Your task to perform on an android device: turn on the 12-hour format for clock Image 0: 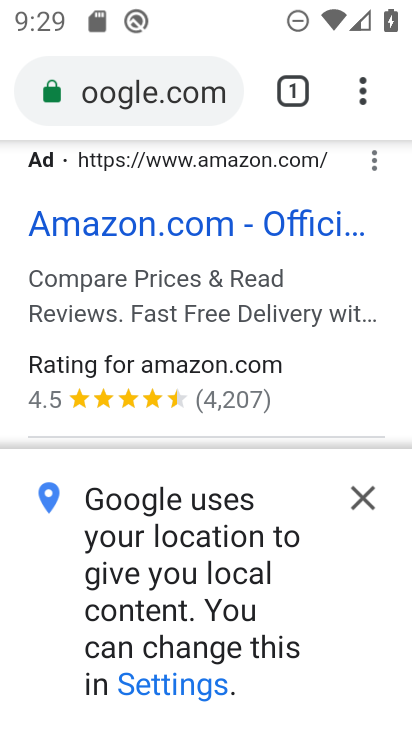
Step 0: press home button
Your task to perform on an android device: turn on the 12-hour format for clock Image 1: 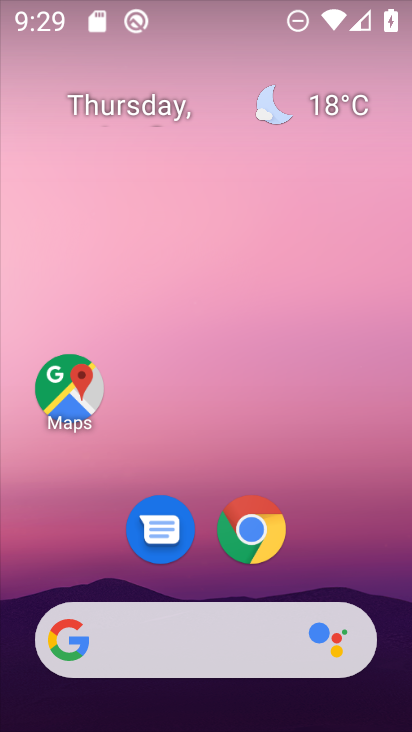
Step 1: drag from (400, 707) to (357, 127)
Your task to perform on an android device: turn on the 12-hour format for clock Image 2: 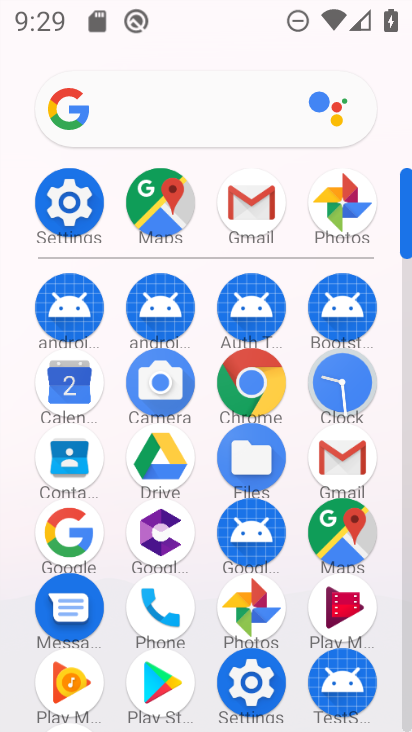
Step 2: click (320, 393)
Your task to perform on an android device: turn on the 12-hour format for clock Image 3: 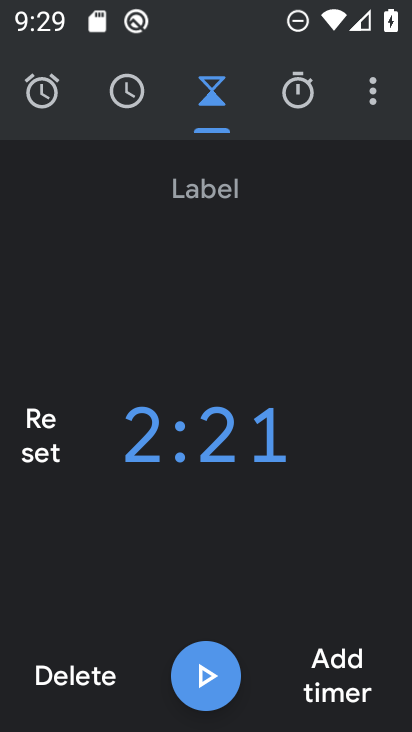
Step 3: press home button
Your task to perform on an android device: turn on the 12-hour format for clock Image 4: 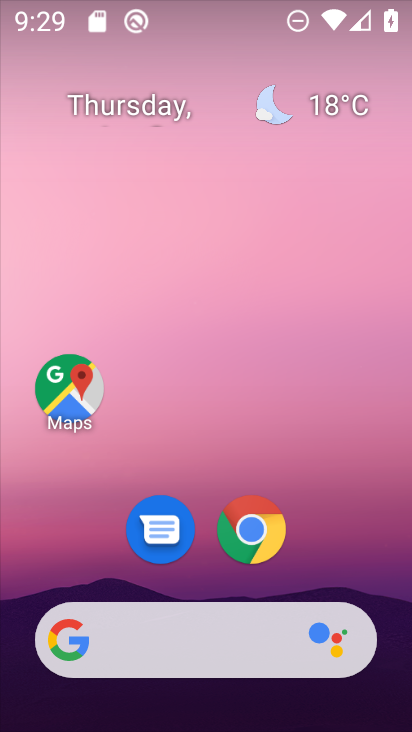
Step 4: drag from (395, 708) to (362, 304)
Your task to perform on an android device: turn on the 12-hour format for clock Image 5: 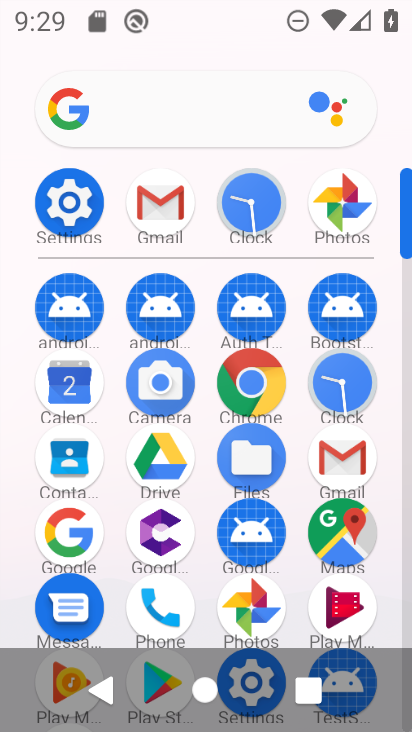
Step 5: click (330, 392)
Your task to perform on an android device: turn on the 12-hour format for clock Image 6: 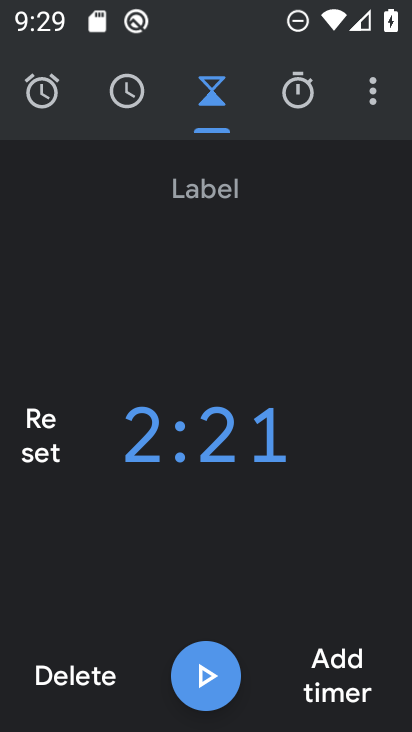
Step 6: click (370, 94)
Your task to perform on an android device: turn on the 12-hour format for clock Image 7: 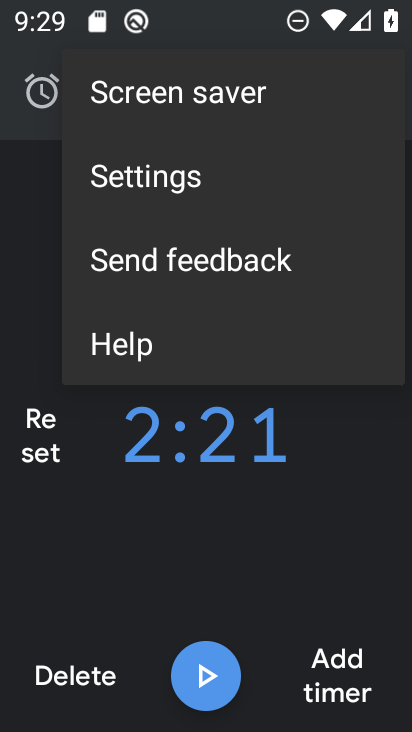
Step 7: click (131, 168)
Your task to perform on an android device: turn on the 12-hour format for clock Image 8: 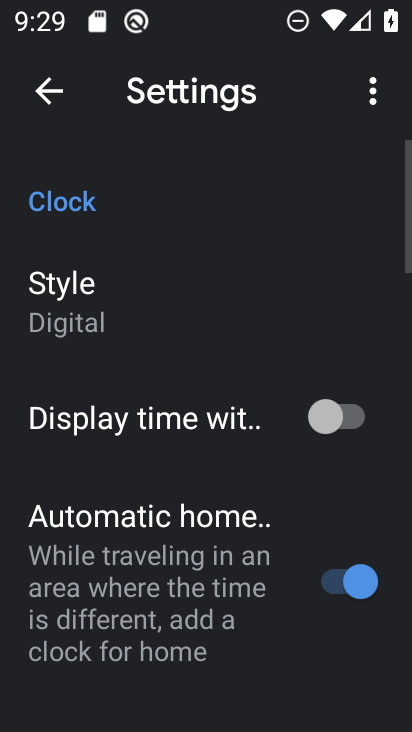
Step 8: drag from (239, 663) to (223, 270)
Your task to perform on an android device: turn on the 12-hour format for clock Image 9: 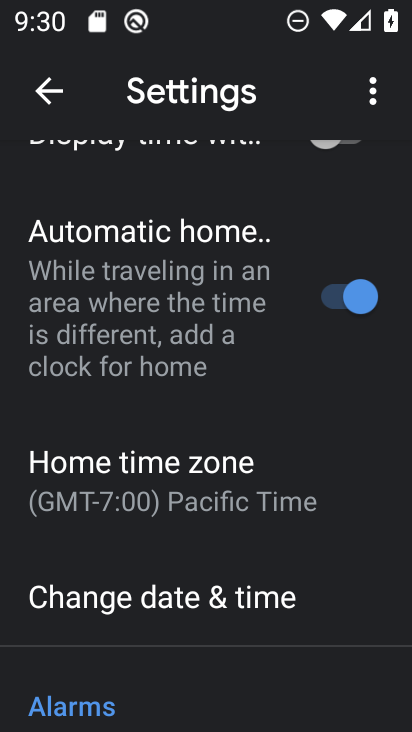
Step 9: drag from (270, 565) to (267, 288)
Your task to perform on an android device: turn on the 12-hour format for clock Image 10: 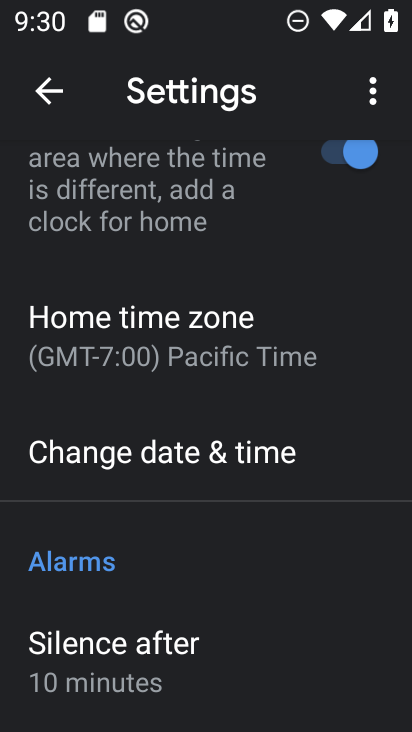
Step 10: click (141, 453)
Your task to perform on an android device: turn on the 12-hour format for clock Image 11: 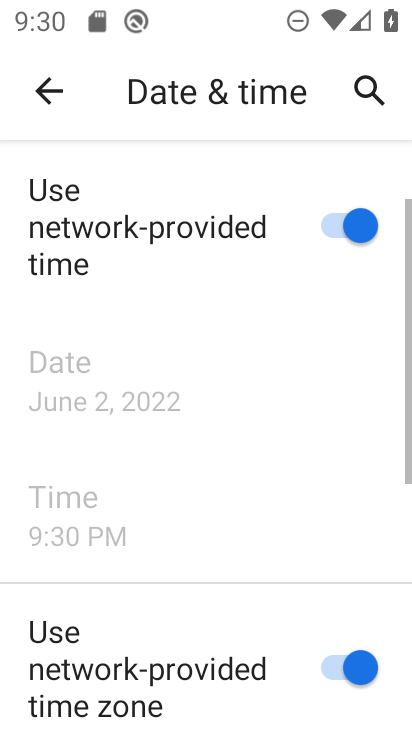
Step 11: task complete